Your task to perform on an android device: change alarm snooze length Image 0: 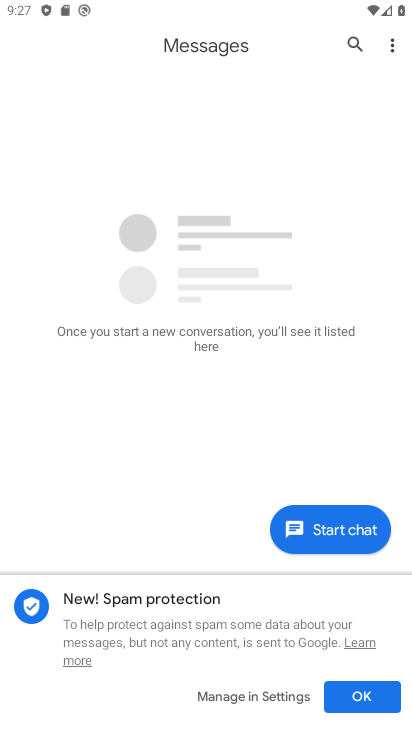
Step 0: press home button
Your task to perform on an android device: change alarm snooze length Image 1: 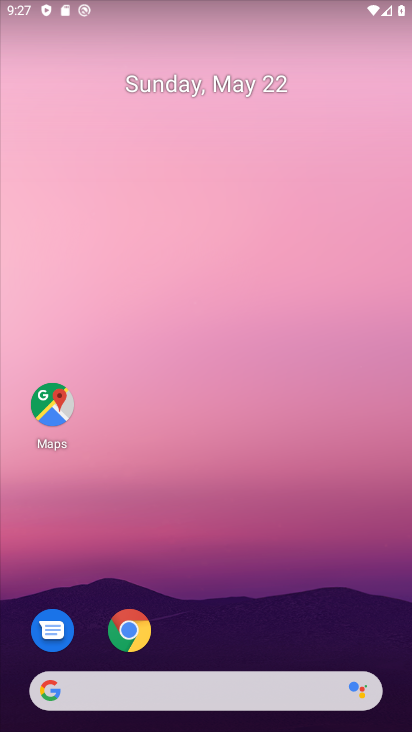
Step 1: drag from (391, 617) to (364, 179)
Your task to perform on an android device: change alarm snooze length Image 2: 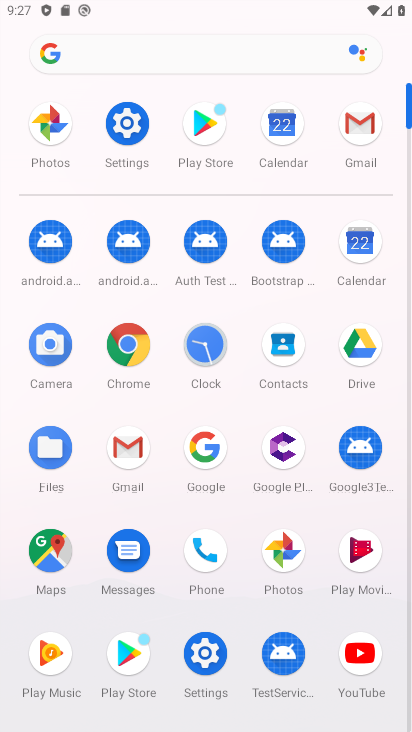
Step 2: click (192, 347)
Your task to perform on an android device: change alarm snooze length Image 3: 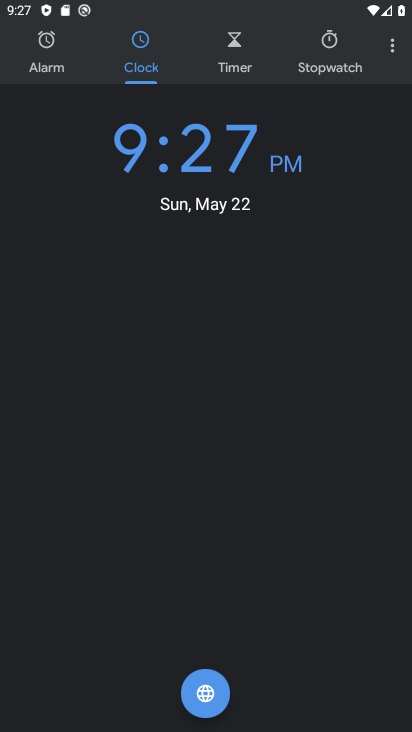
Step 3: click (393, 47)
Your task to perform on an android device: change alarm snooze length Image 4: 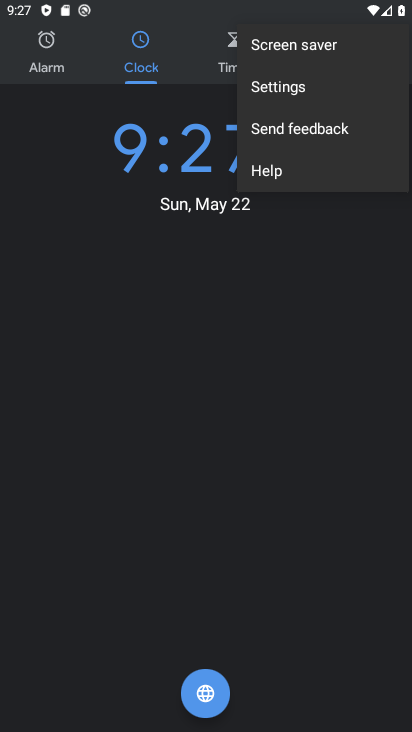
Step 4: click (262, 86)
Your task to perform on an android device: change alarm snooze length Image 5: 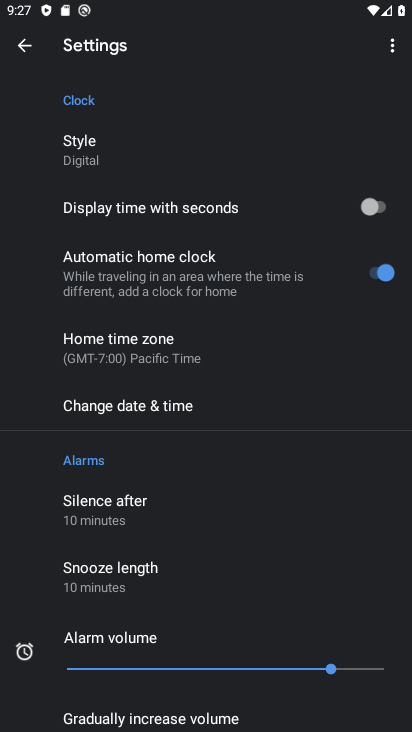
Step 5: click (116, 590)
Your task to perform on an android device: change alarm snooze length Image 6: 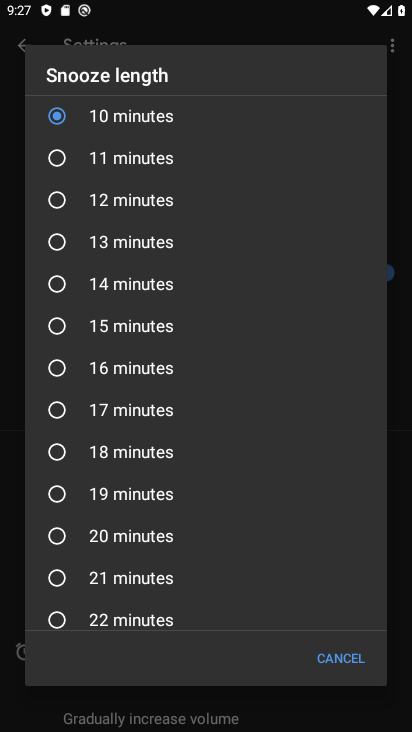
Step 6: click (54, 239)
Your task to perform on an android device: change alarm snooze length Image 7: 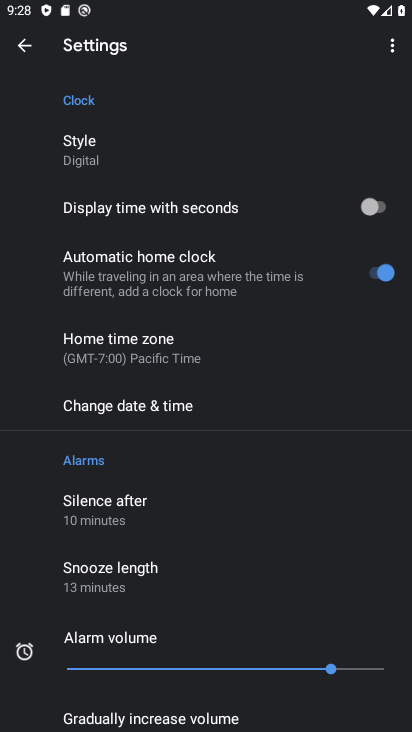
Step 7: task complete